Your task to perform on an android device: Go to location settings Image 0: 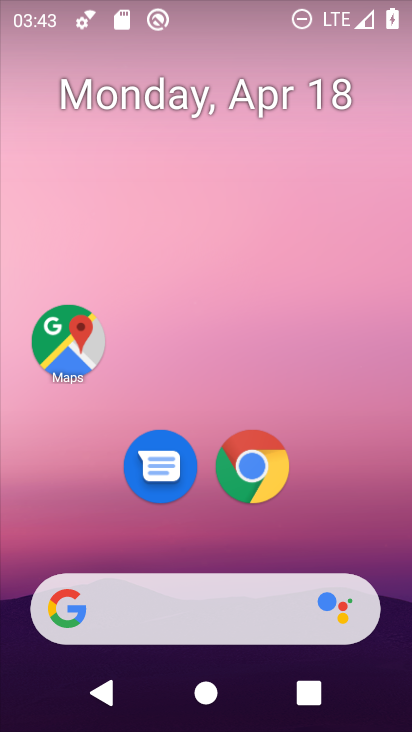
Step 0: drag from (367, 518) to (303, 202)
Your task to perform on an android device: Go to location settings Image 1: 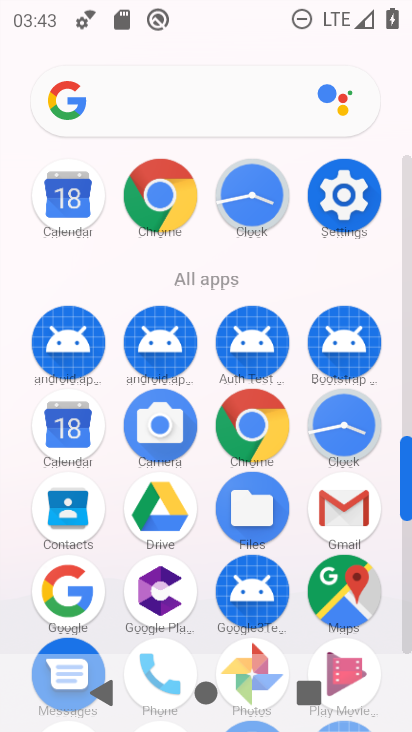
Step 1: click (346, 216)
Your task to perform on an android device: Go to location settings Image 2: 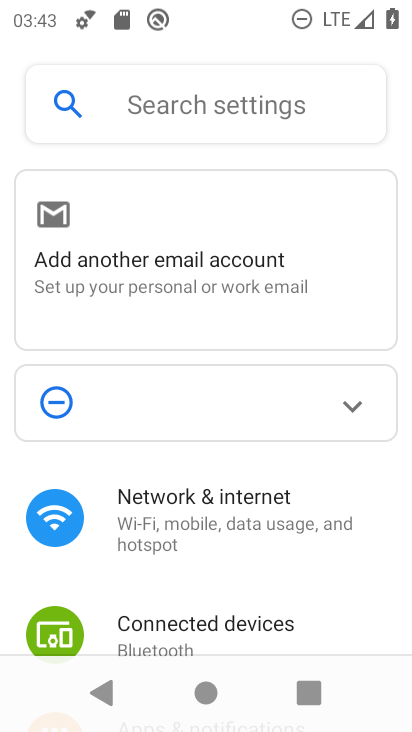
Step 2: drag from (265, 579) to (332, 125)
Your task to perform on an android device: Go to location settings Image 3: 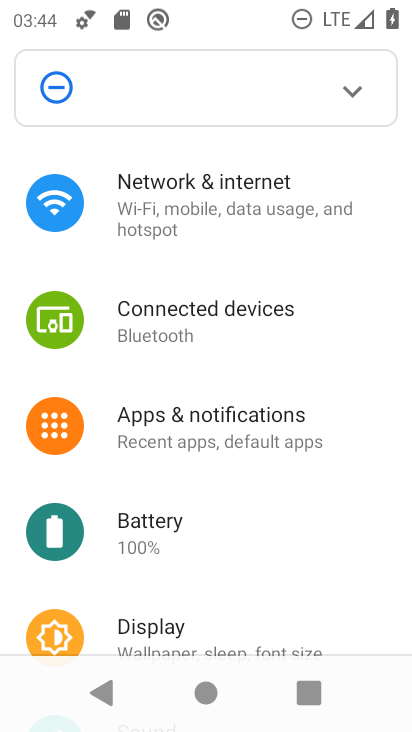
Step 3: drag from (242, 485) to (298, 142)
Your task to perform on an android device: Go to location settings Image 4: 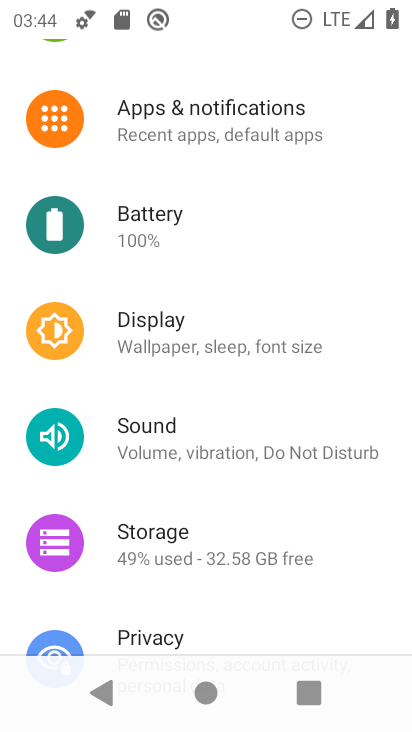
Step 4: drag from (242, 580) to (270, 210)
Your task to perform on an android device: Go to location settings Image 5: 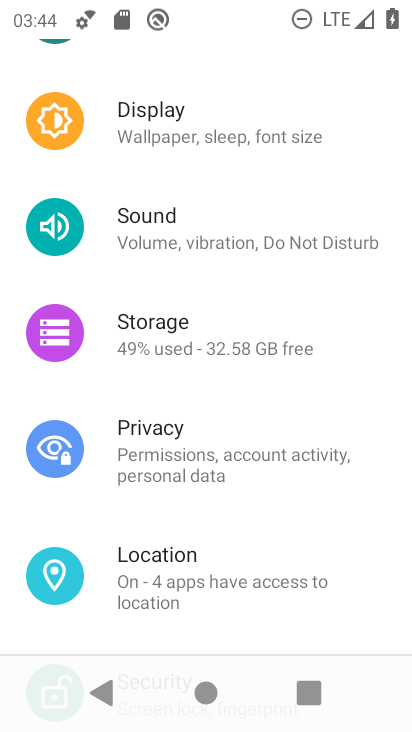
Step 5: click (231, 576)
Your task to perform on an android device: Go to location settings Image 6: 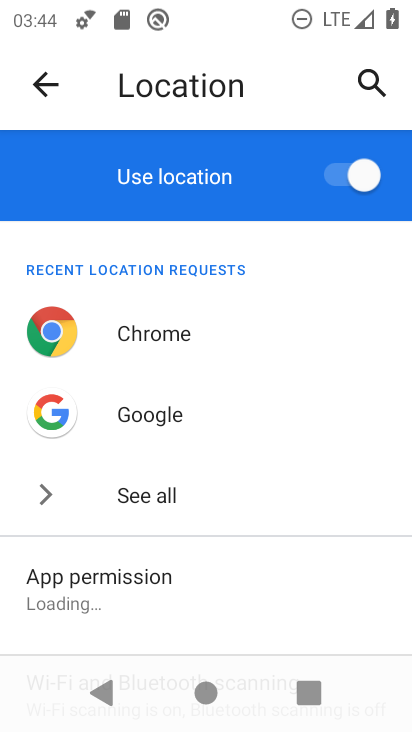
Step 6: drag from (231, 576) to (287, 283)
Your task to perform on an android device: Go to location settings Image 7: 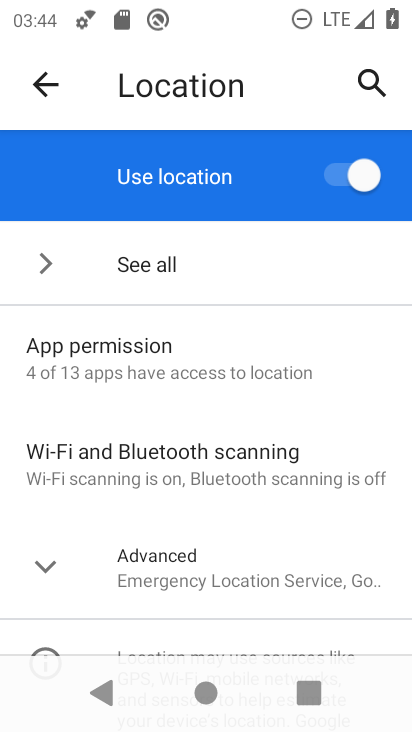
Step 7: drag from (268, 522) to (274, 289)
Your task to perform on an android device: Go to location settings Image 8: 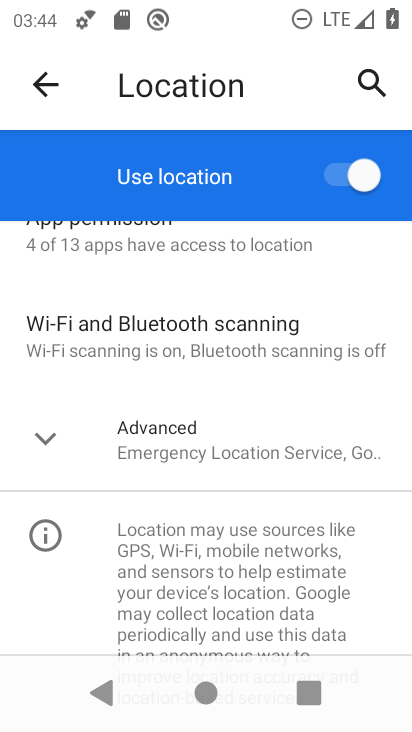
Step 8: click (261, 422)
Your task to perform on an android device: Go to location settings Image 9: 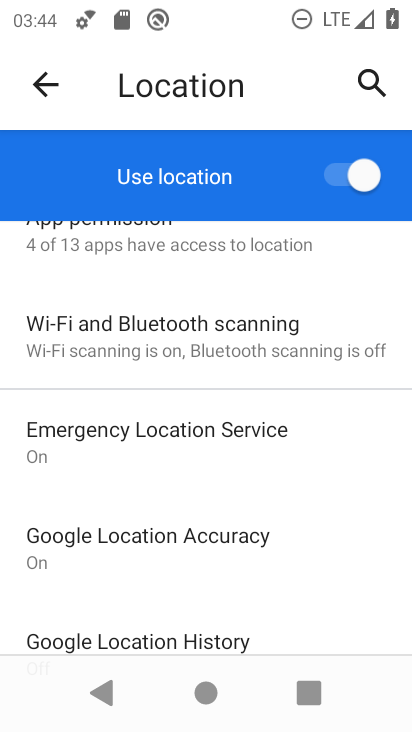
Step 9: click (223, 611)
Your task to perform on an android device: Go to location settings Image 10: 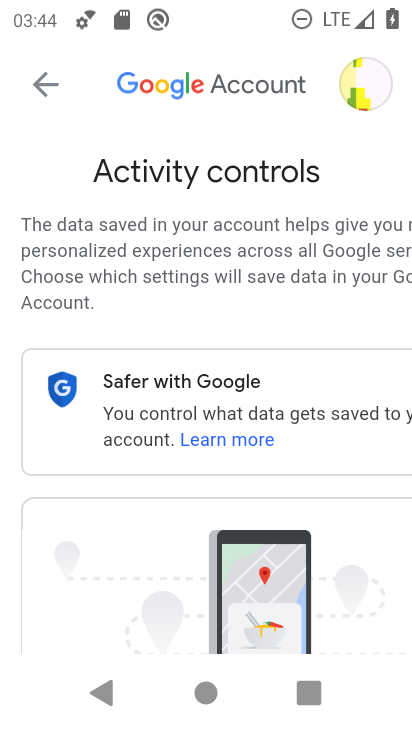
Step 10: task complete